Your task to perform on an android device: Go to calendar. Show me events next week Image 0: 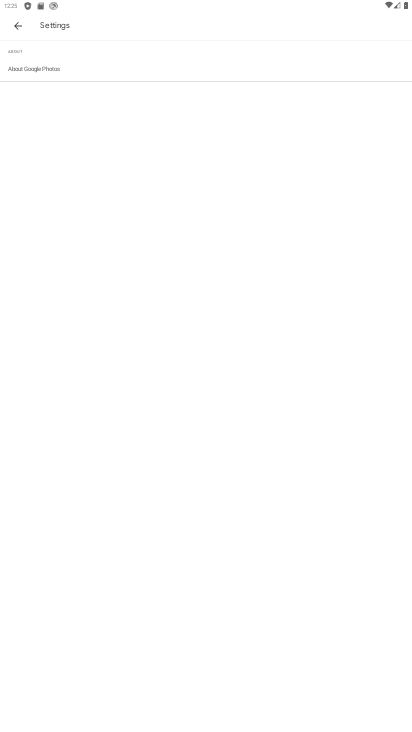
Step 0: press home button
Your task to perform on an android device: Go to calendar. Show me events next week Image 1: 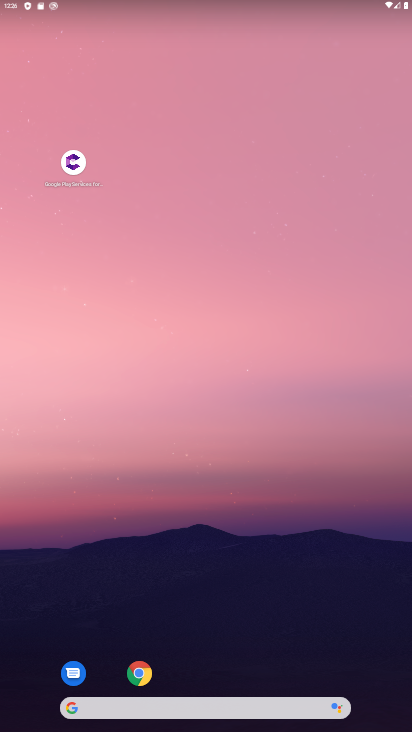
Step 1: drag from (219, 670) to (186, 1)
Your task to perform on an android device: Go to calendar. Show me events next week Image 2: 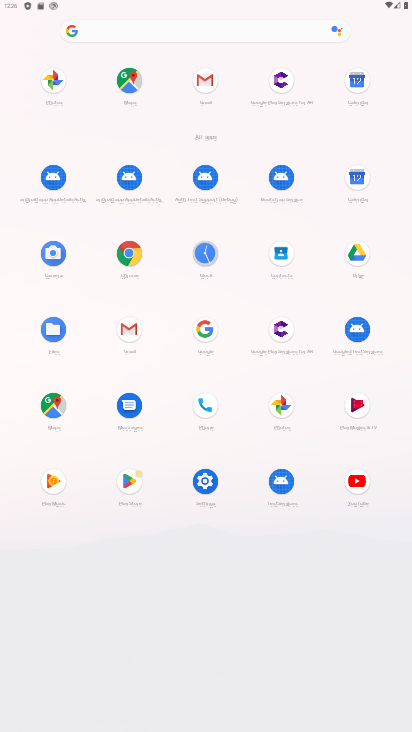
Step 2: click (352, 176)
Your task to perform on an android device: Go to calendar. Show me events next week Image 3: 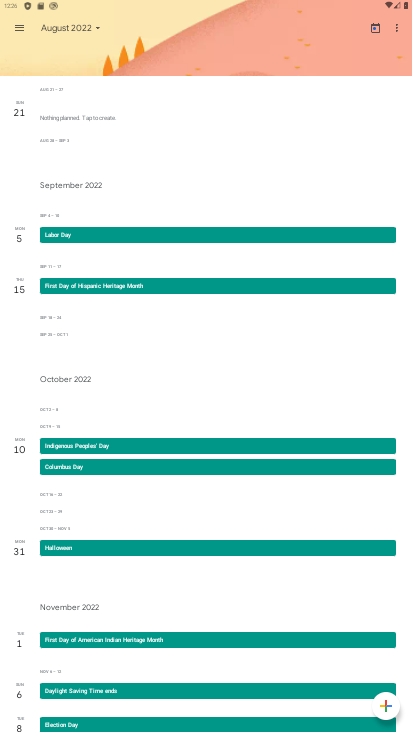
Step 3: click (14, 29)
Your task to perform on an android device: Go to calendar. Show me events next week Image 4: 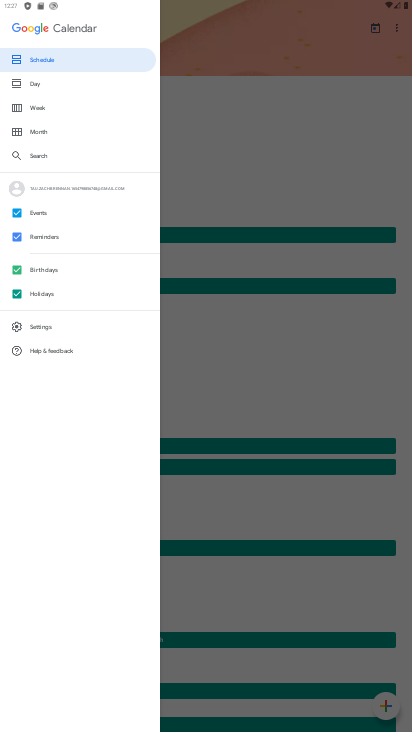
Step 4: click (40, 109)
Your task to perform on an android device: Go to calendar. Show me events next week Image 5: 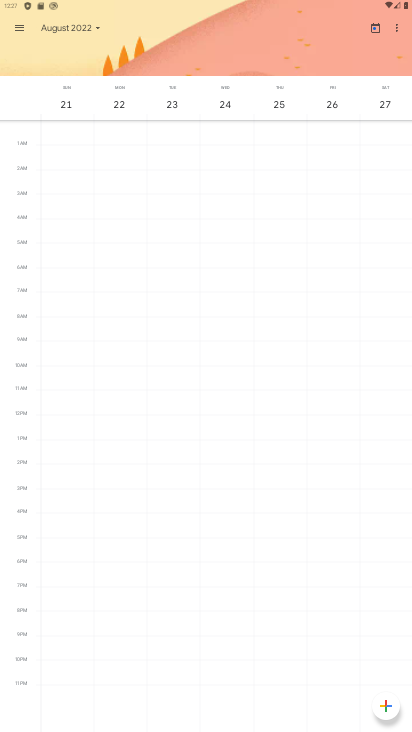
Step 5: click (97, 25)
Your task to perform on an android device: Go to calendar. Show me events next week Image 6: 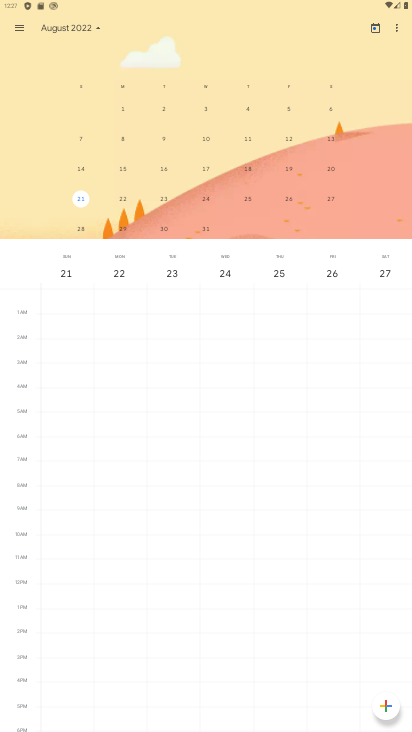
Step 6: drag from (61, 153) to (320, 181)
Your task to perform on an android device: Go to calendar. Show me events next week Image 7: 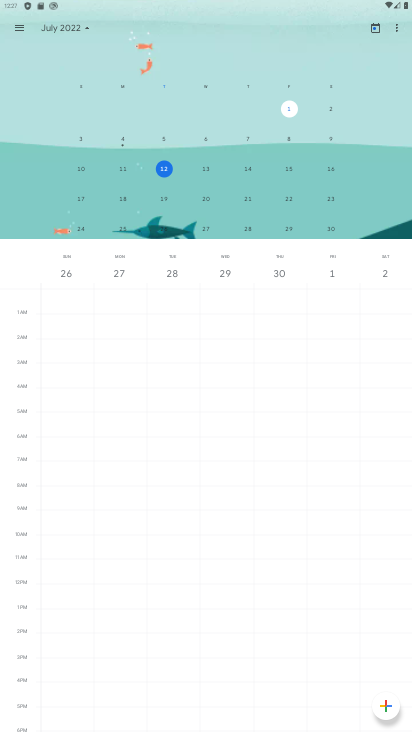
Step 7: click (75, 196)
Your task to perform on an android device: Go to calendar. Show me events next week Image 8: 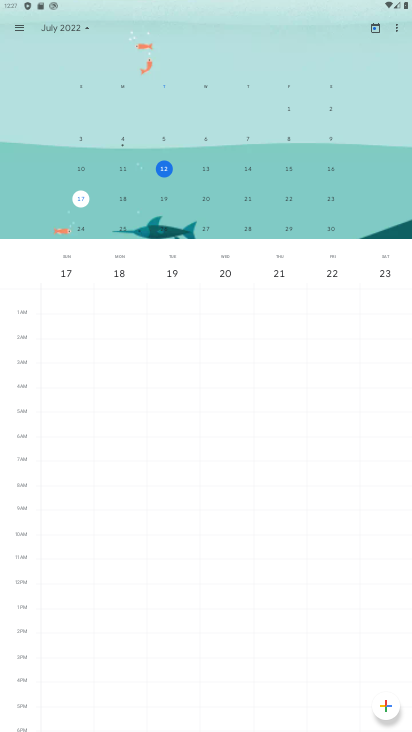
Step 8: click (84, 27)
Your task to perform on an android device: Go to calendar. Show me events next week Image 9: 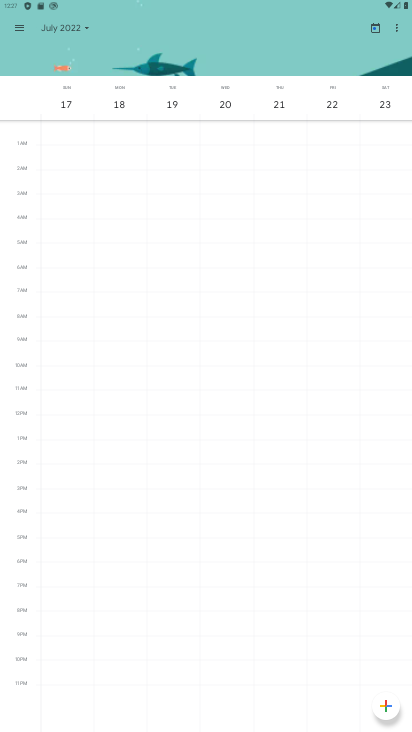
Step 9: task complete